Your task to perform on an android device: turn on bluetooth scan Image 0: 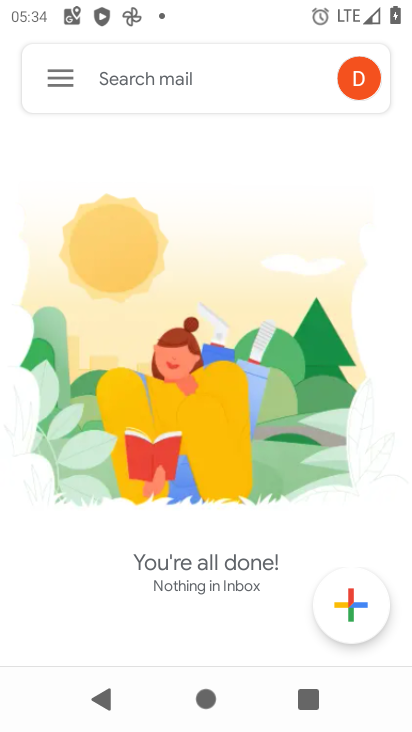
Step 0: press home button
Your task to perform on an android device: turn on bluetooth scan Image 1: 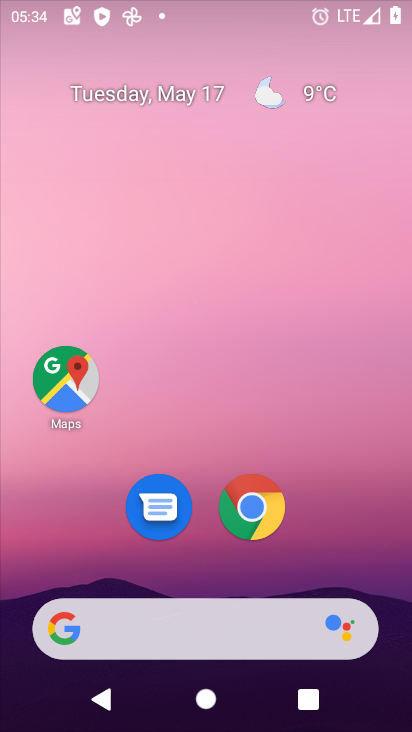
Step 1: drag from (328, 575) to (269, 77)
Your task to perform on an android device: turn on bluetooth scan Image 2: 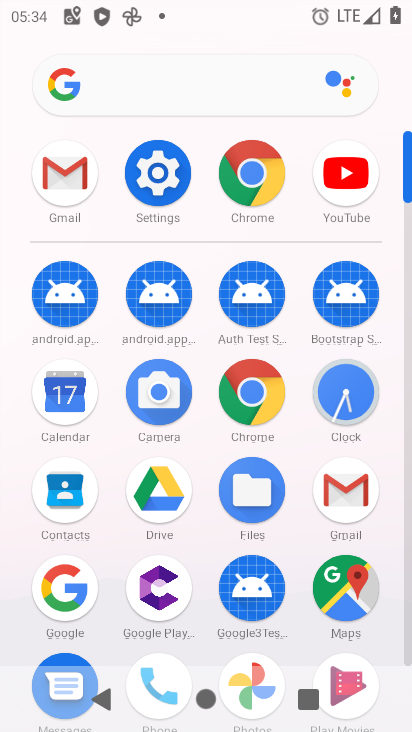
Step 2: click (135, 144)
Your task to perform on an android device: turn on bluetooth scan Image 3: 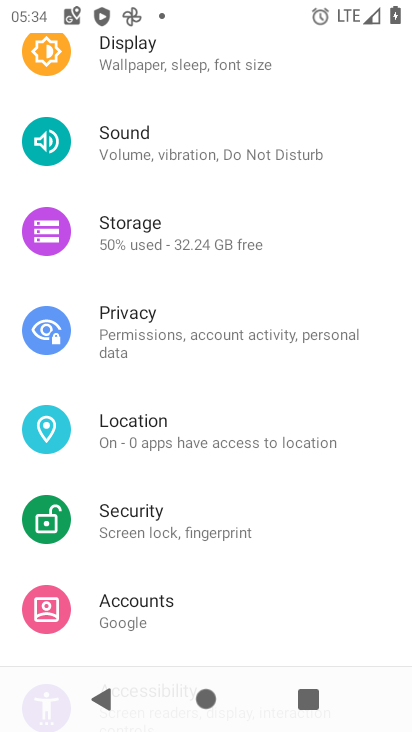
Step 3: click (180, 418)
Your task to perform on an android device: turn on bluetooth scan Image 4: 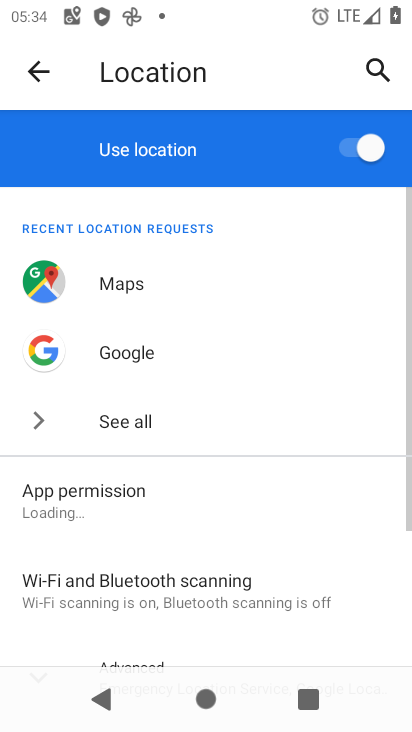
Step 4: click (236, 585)
Your task to perform on an android device: turn on bluetooth scan Image 5: 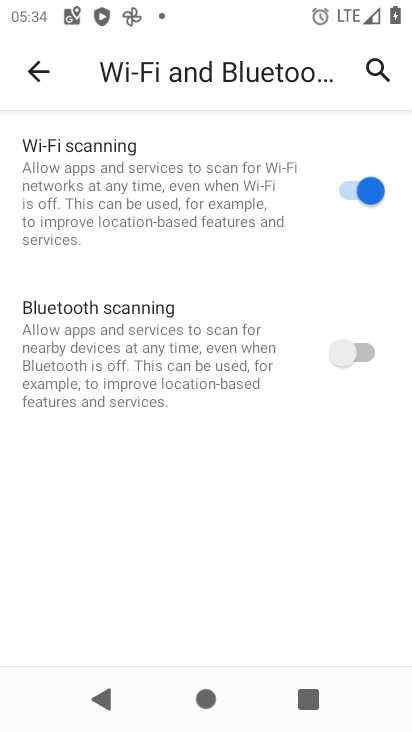
Step 5: click (362, 343)
Your task to perform on an android device: turn on bluetooth scan Image 6: 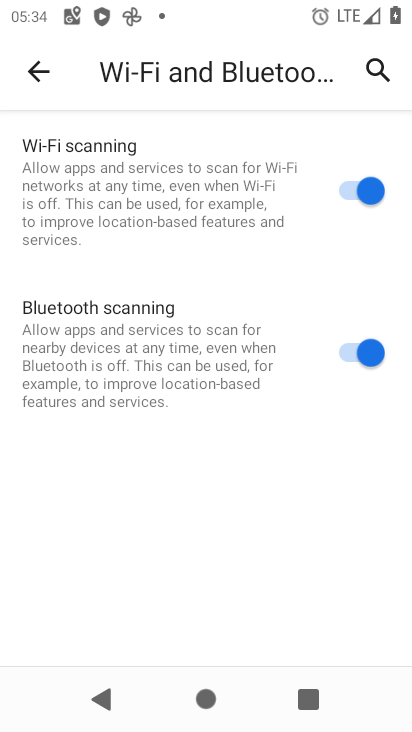
Step 6: task complete